Your task to perform on an android device: Open Google Image 0: 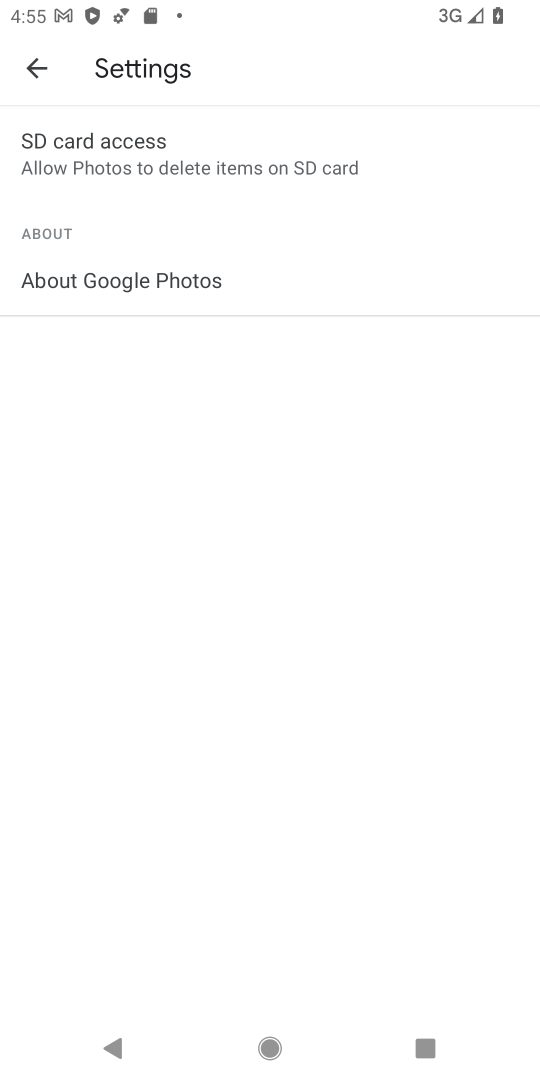
Step 0: press home button
Your task to perform on an android device: Open Google Image 1: 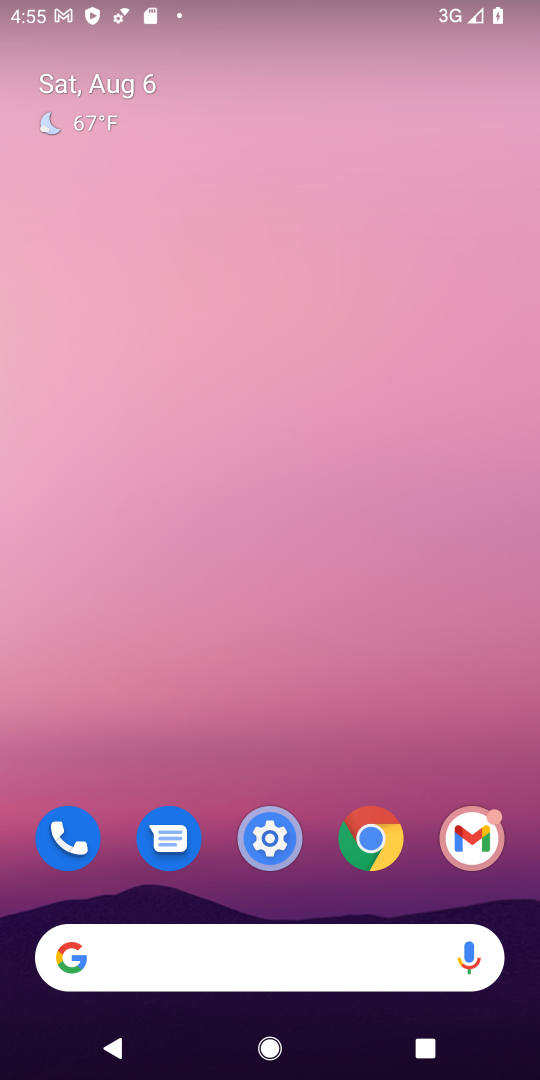
Step 1: drag from (84, 761) to (369, 89)
Your task to perform on an android device: Open Google Image 2: 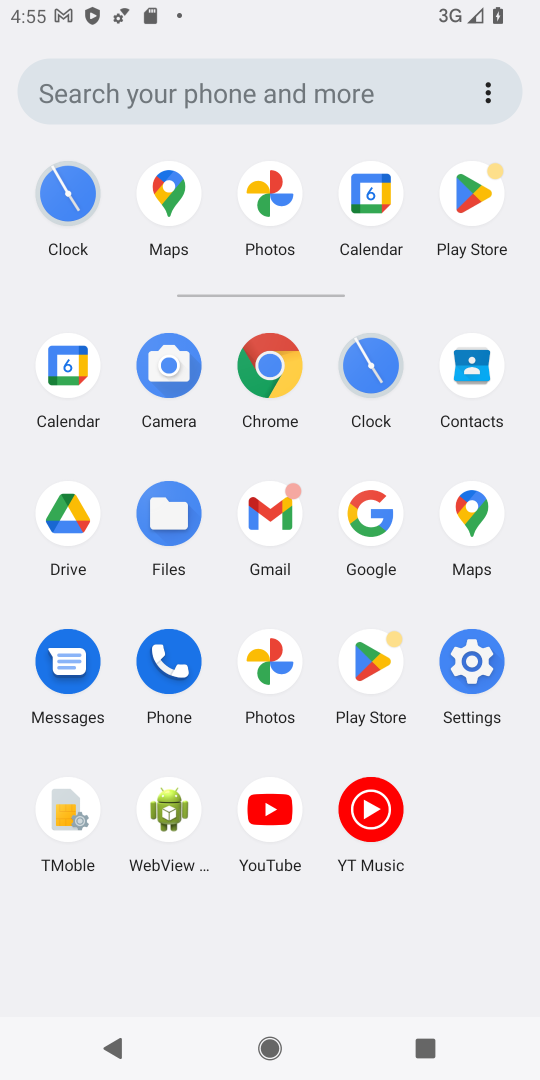
Step 2: click (353, 510)
Your task to perform on an android device: Open Google Image 3: 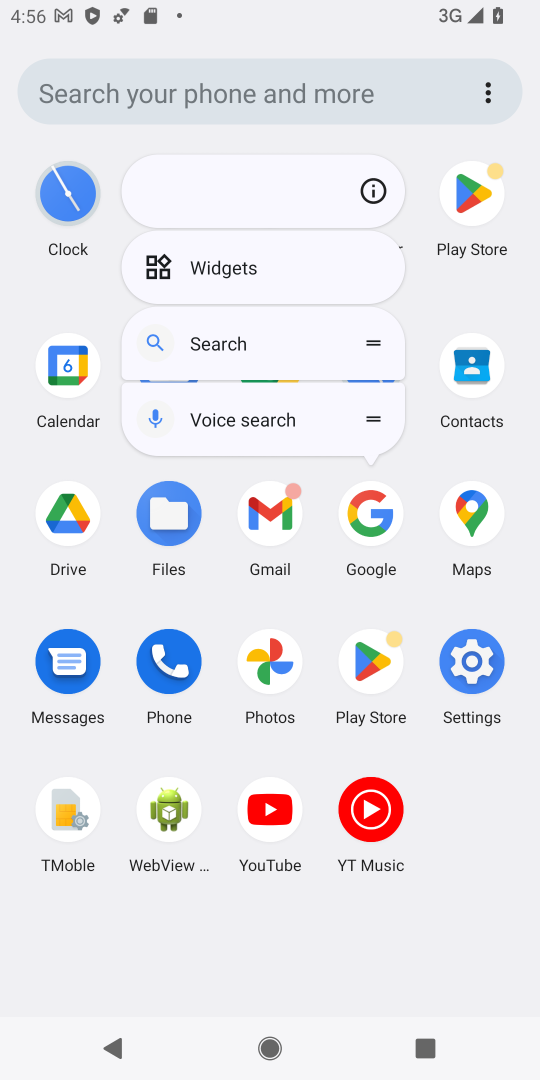
Step 3: click (380, 511)
Your task to perform on an android device: Open Google Image 4: 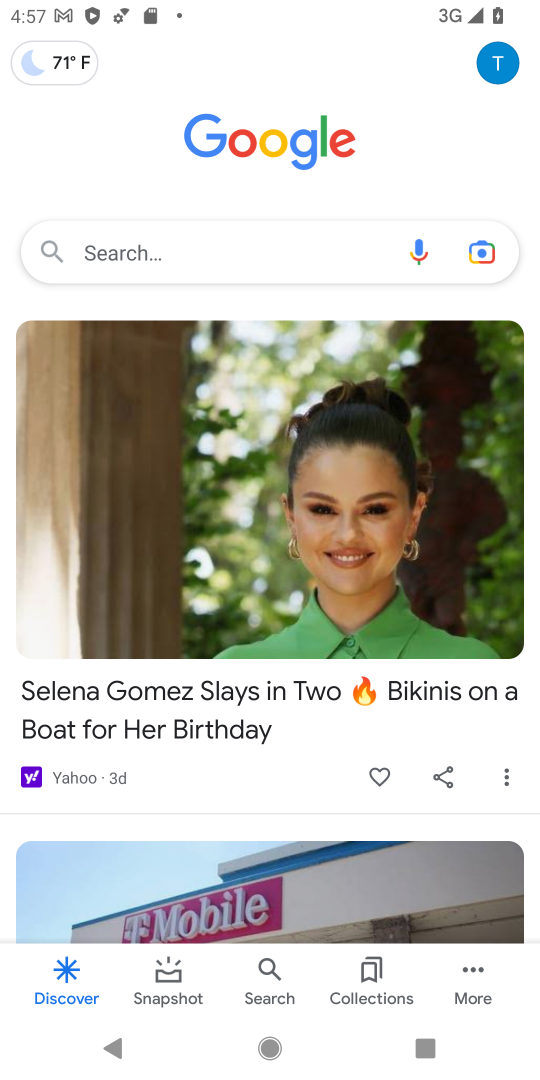
Step 4: task complete